Your task to perform on an android device: Open Wikipedia Image 0: 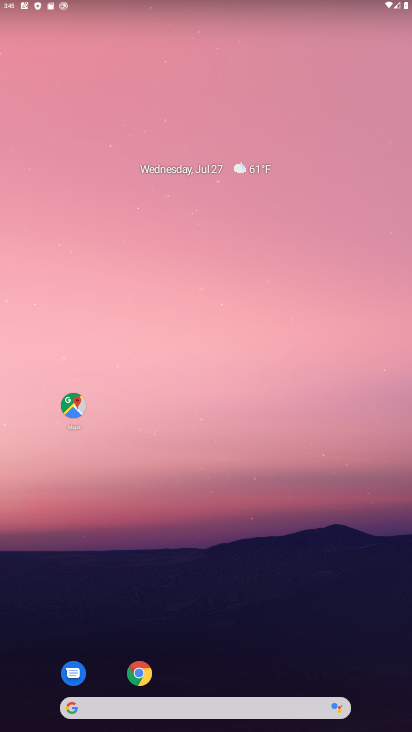
Step 0: click (150, 674)
Your task to perform on an android device: Open Wikipedia Image 1: 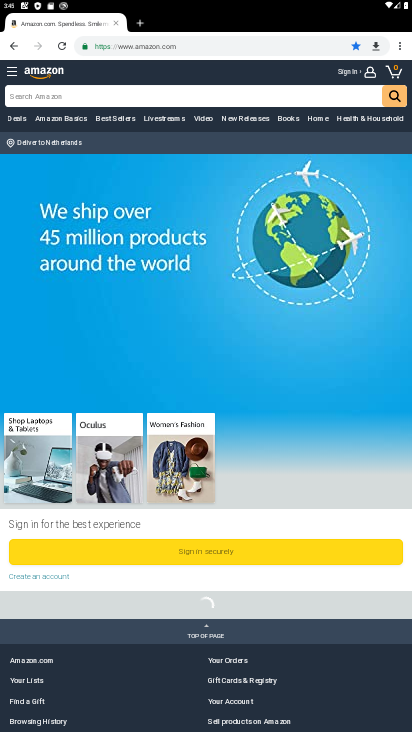
Step 1: click (140, 22)
Your task to perform on an android device: Open Wikipedia Image 2: 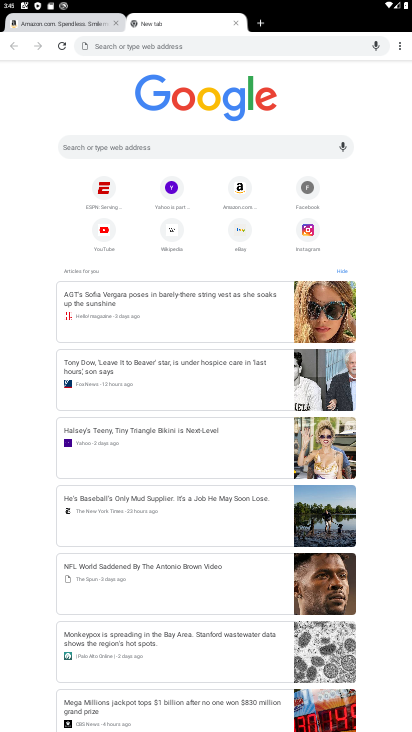
Step 2: click (113, 25)
Your task to perform on an android device: Open Wikipedia Image 3: 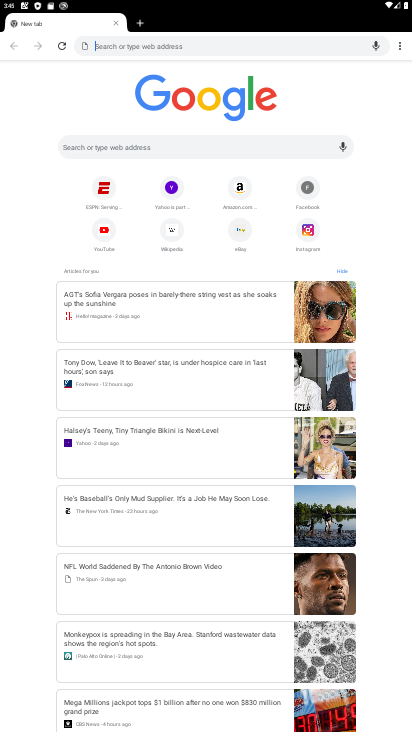
Step 3: click (167, 231)
Your task to perform on an android device: Open Wikipedia Image 4: 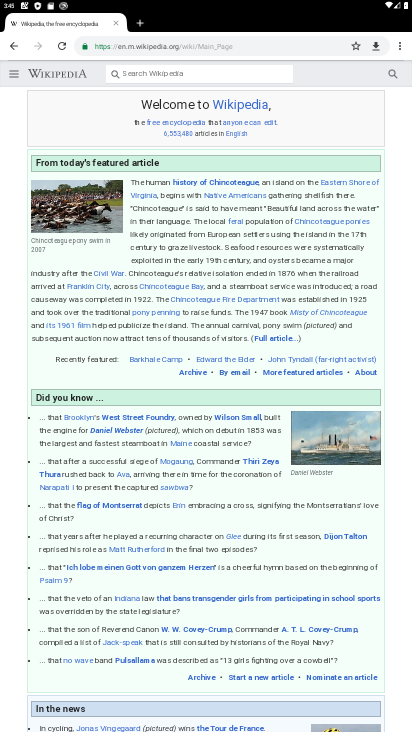
Step 4: task complete